Your task to perform on an android device: Open Maps and search for coffee Image 0: 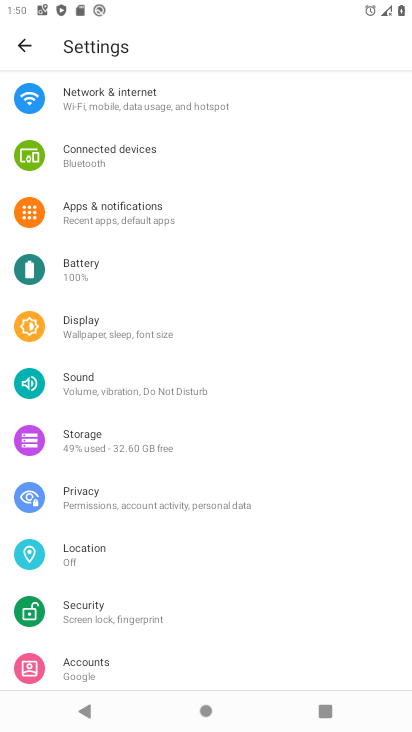
Step 0: press home button
Your task to perform on an android device: Open Maps and search for coffee Image 1: 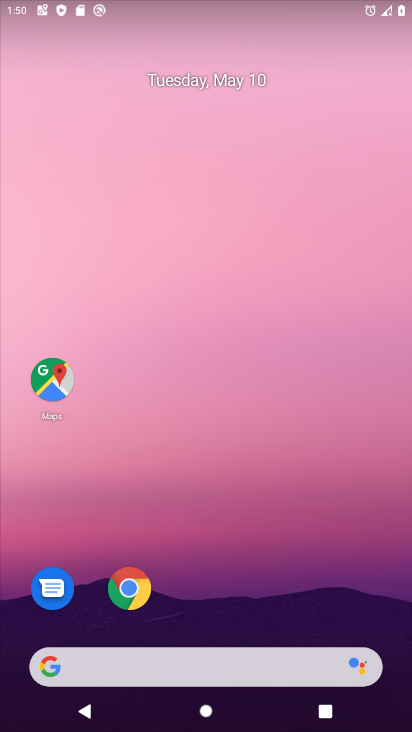
Step 1: drag from (289, 496) to (289, 260)
Your task to perform on an android device: Open Maps and search for coffee Image 2: 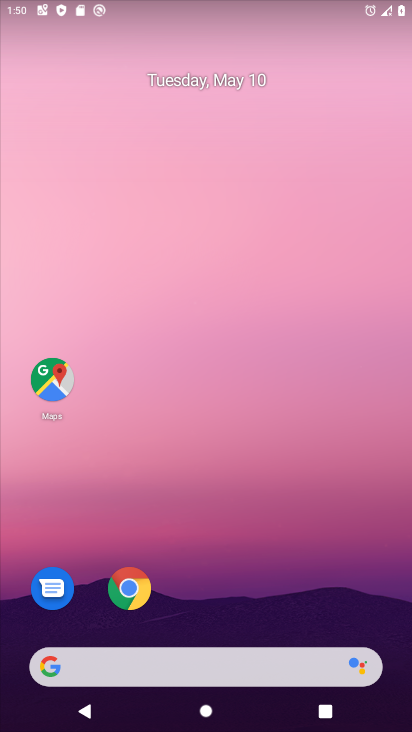
Step 2: drag from (226, 469) to (261, 293)
Your task to perform on an android device: Open Maps and search for coffee Image 3: 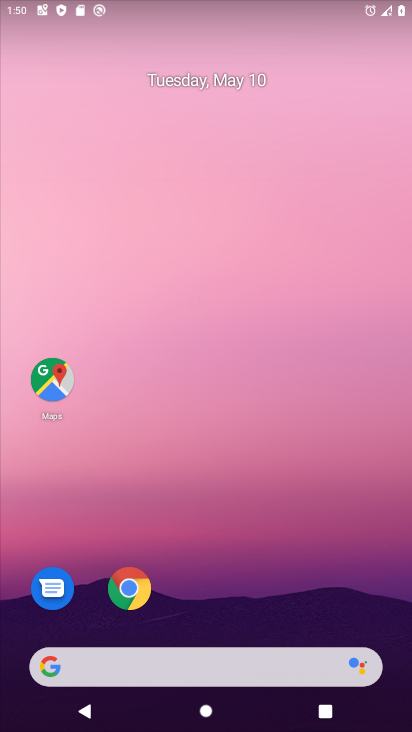
Step 3: drag from (200, 582) to (204, 230)
Your task to perform on an android device: Open Maps and search for coffee Image 4: 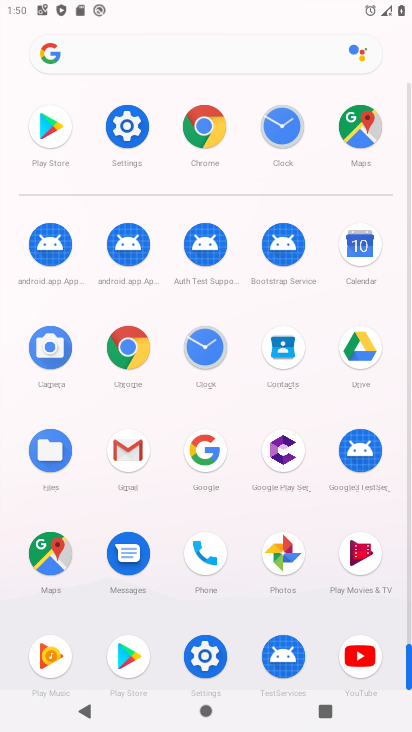
Step 4: click (48, 549)
Your task to perform on an android device: Open Maps and search for coffee Image 5: 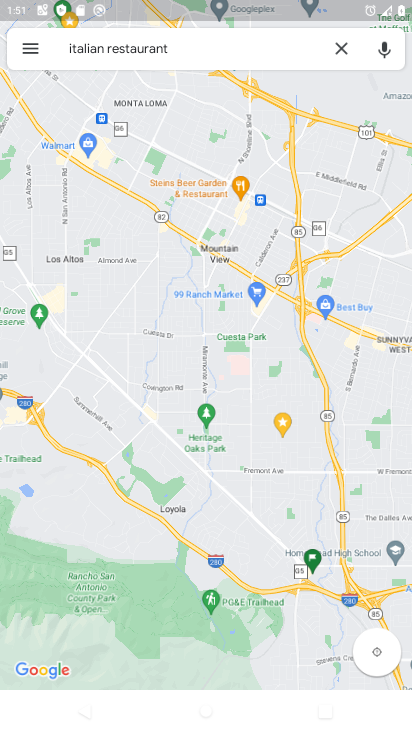
Step 5: click (345, 43)
Your task to perform on an android device: Open Maps and search for coffee Image 6: 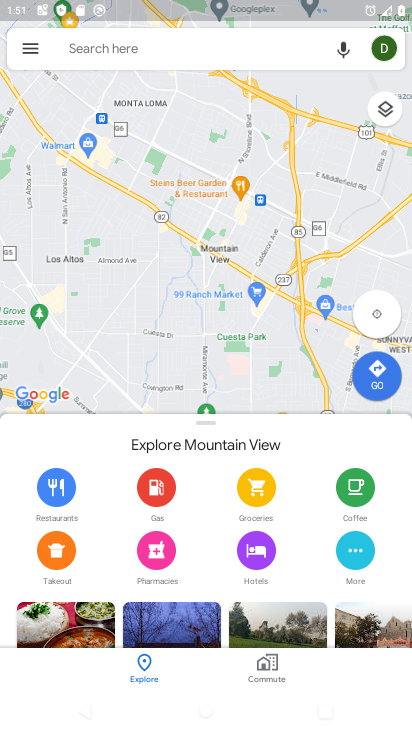
Step 6: click (209, 41)
Your task to perform on an android device: Open Maps and search for coffee Image 7: 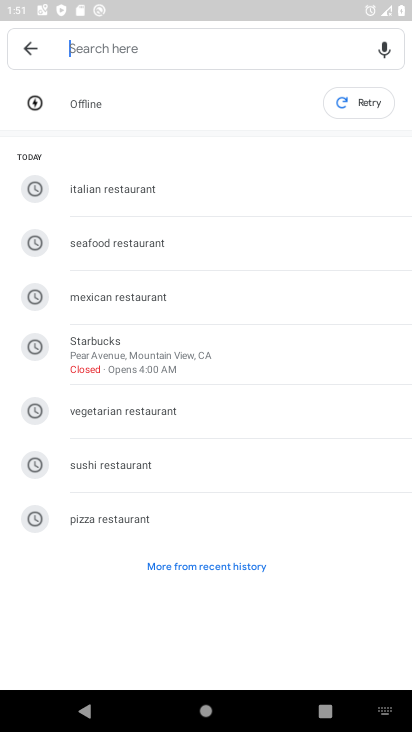
Step 7: click (183, 34)
Your task to perform on an android device: Open Maps and search for coffee Image 8: 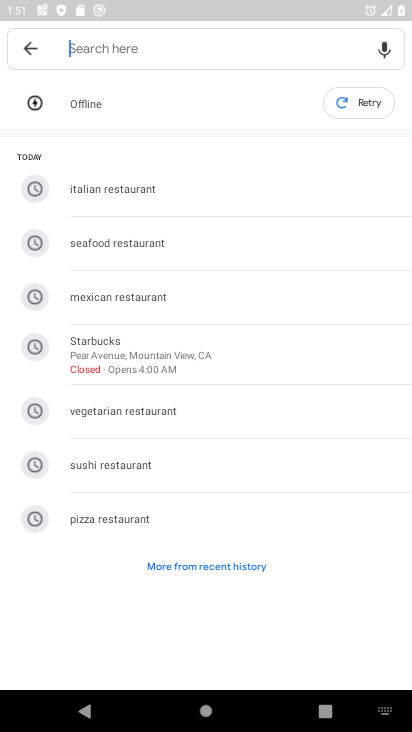
Step 8: type " coffee"
Your task to perform on an android device: Open Maps and search for coffee Image 9: 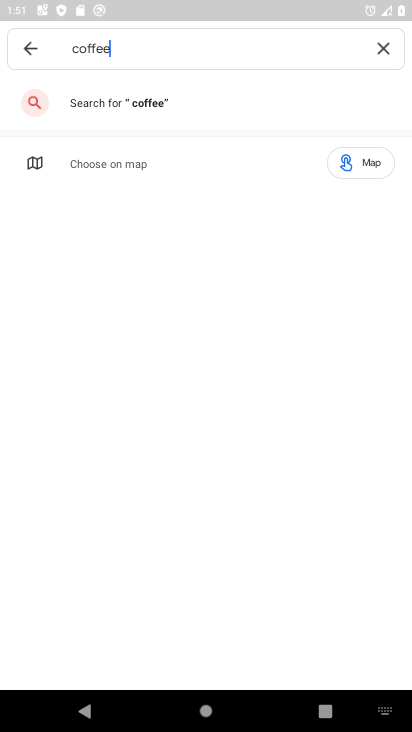
Step 9: task complete